Your task to perform on an android device: uninstall "Etsy: Buy & Sell Unique Items" Image 0: 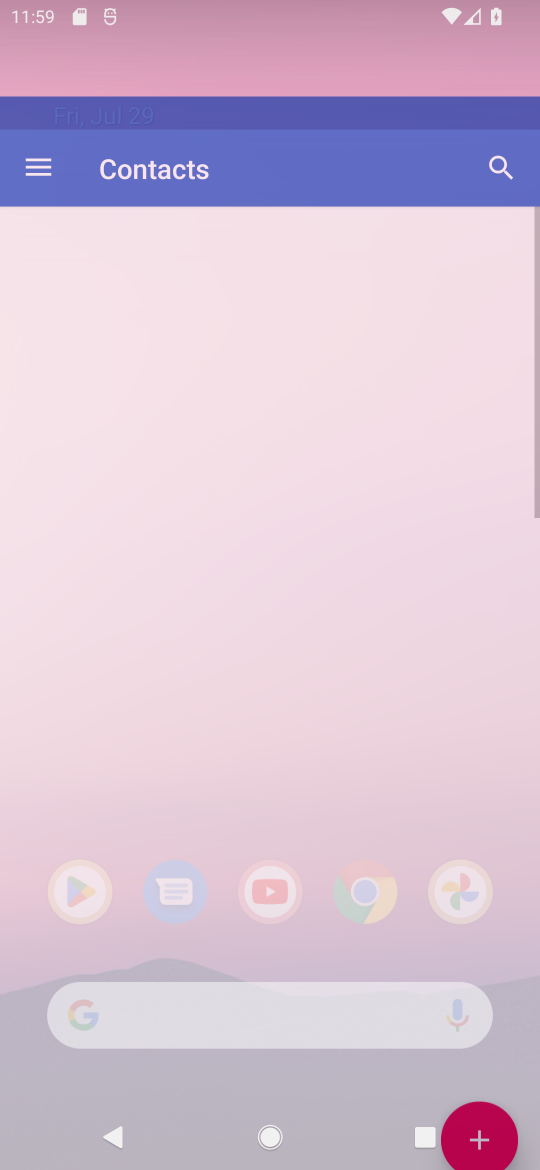
Step 0: press home button
Your task to perform on an android device: uninstall "Etsy: Buy & Sell Unique Items" Image 1: 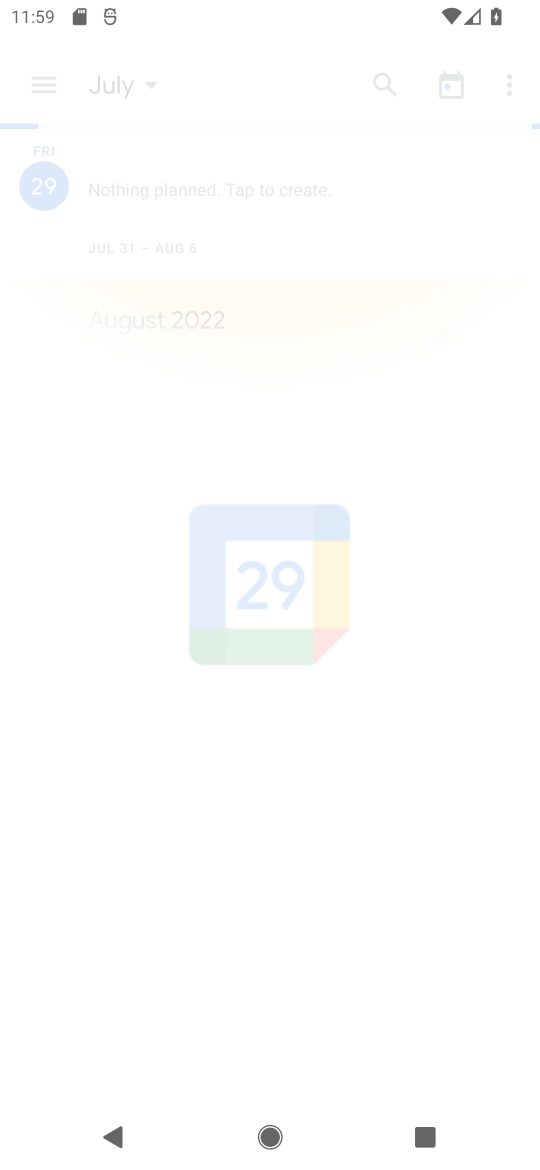
Step 1: press home button
Your task to perform on an android device: uninstall "Etsy: Buy & Sell Unique Items" Image 2: 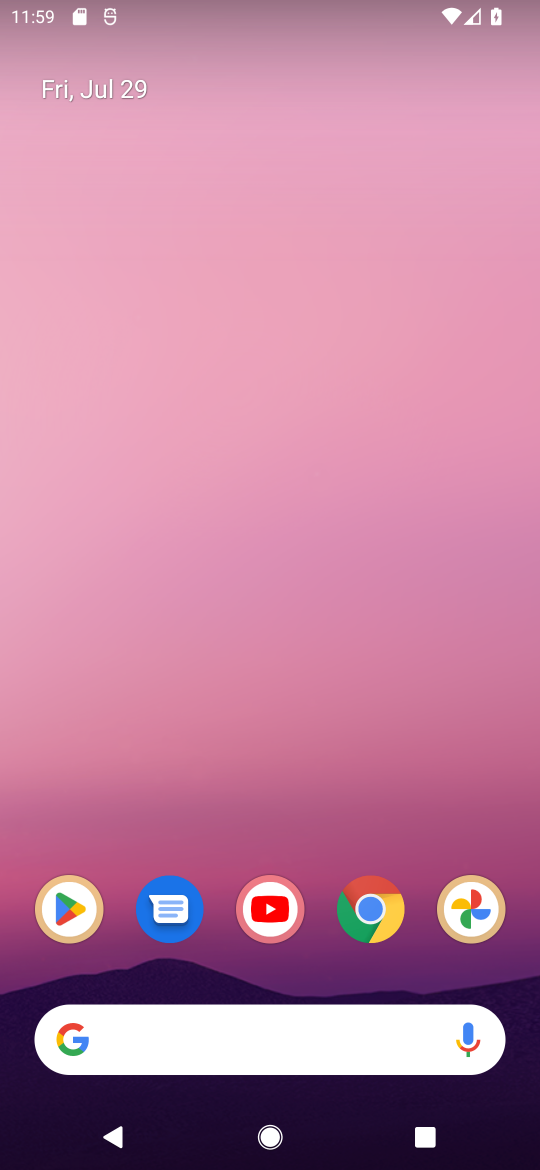
Step 2: click (171, 1123)
Your task to perform on an android device: uninstall "Etsy: Buy & Sell Unique Items" Image 3: 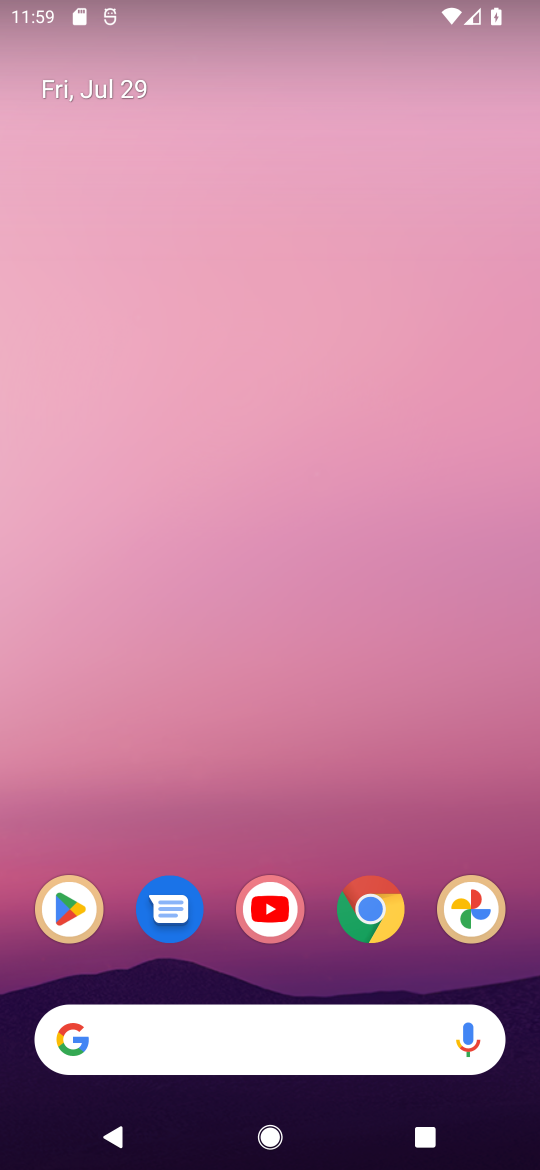
Step 3: click (60, 933)
Your task to perform on an android device: uninstall "Etsy: Buy & Sell Unique Items" Image 4: 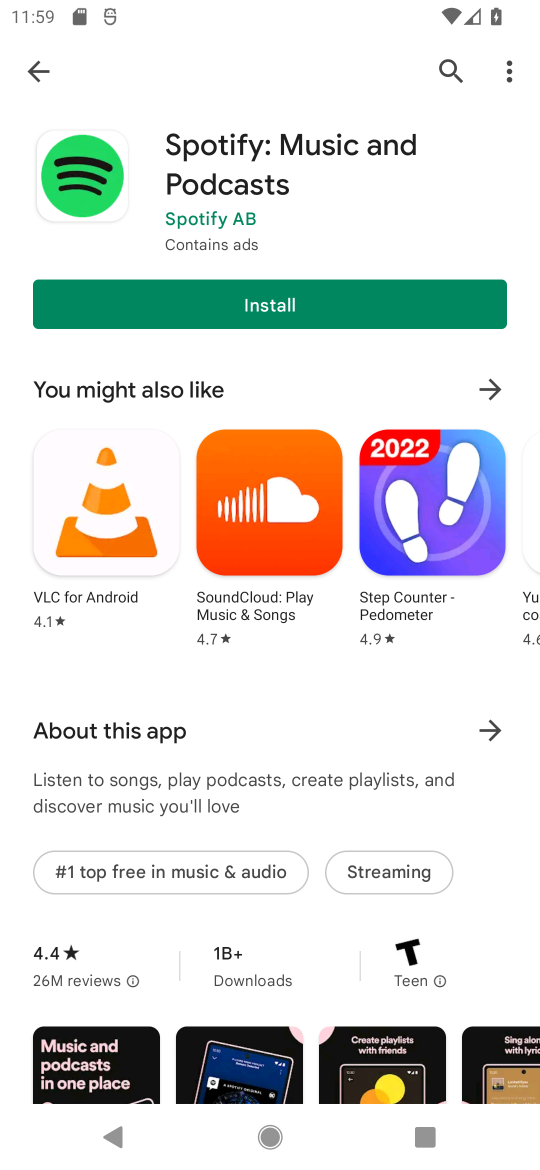
Step 4: click (447, 58)
Your task to perform on an android device: uninstall "Etsy: Buy & Sell Unique Items" Image 5: 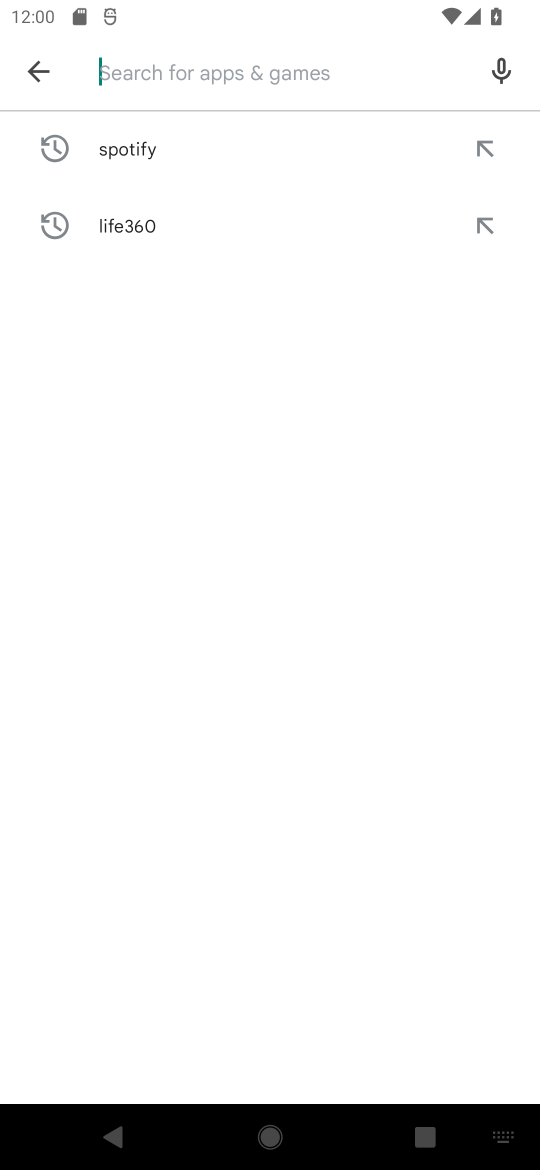
Step 5: type "Etsy: Buy & Sell Unique Items"
Your task to perform on an android device: uninstall "Etsy: Buy & Sell Unique Items" Image 6: 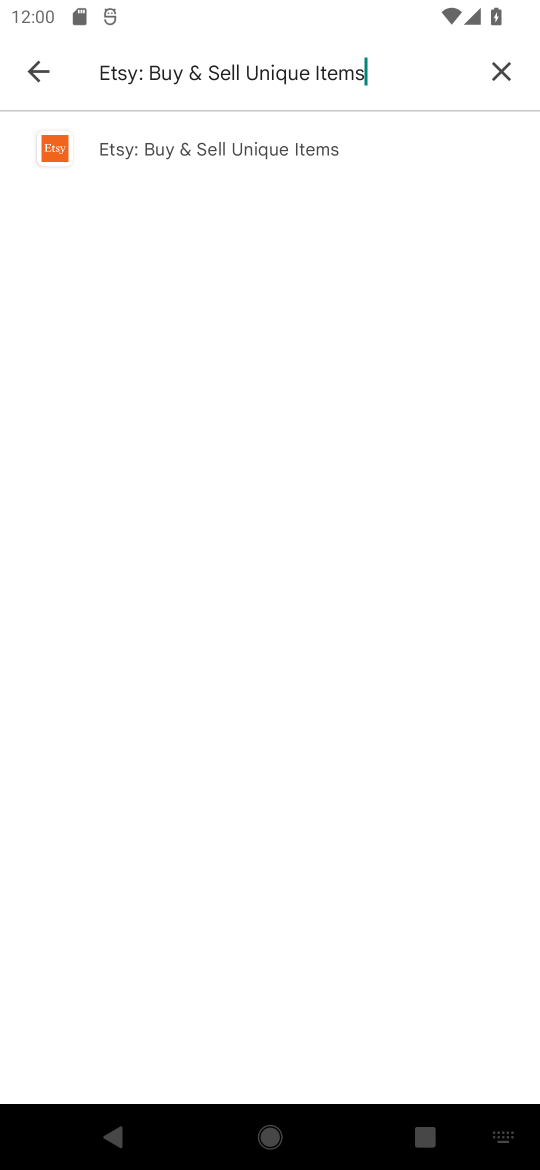
Step 6: click (266, 156)
Your task to perform on an android device: uninstall "Etsy: Buy & Sell Unique Items" Image 7: 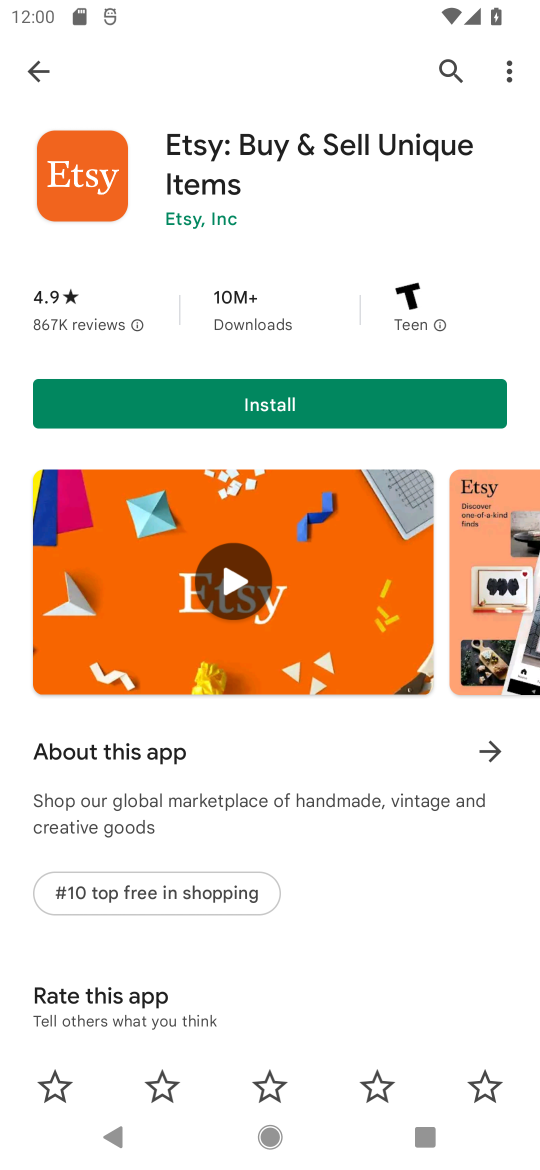
Step 7: task complete